Your task to perform on an android device: turn notification dots on Image 0: 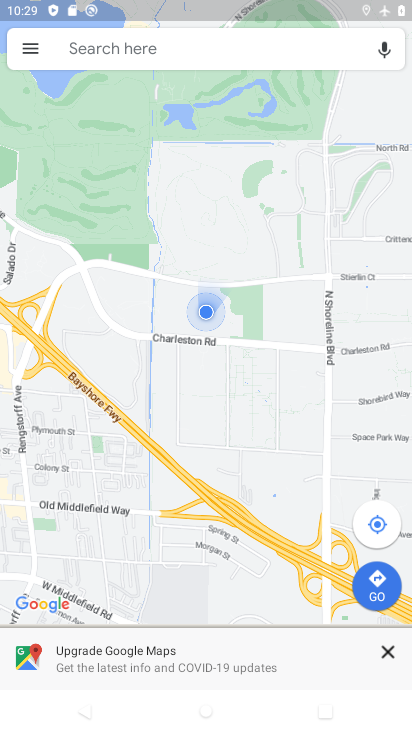
Step 0: press home button
Your task to perform on an android device: turn notification dots on Image 1: 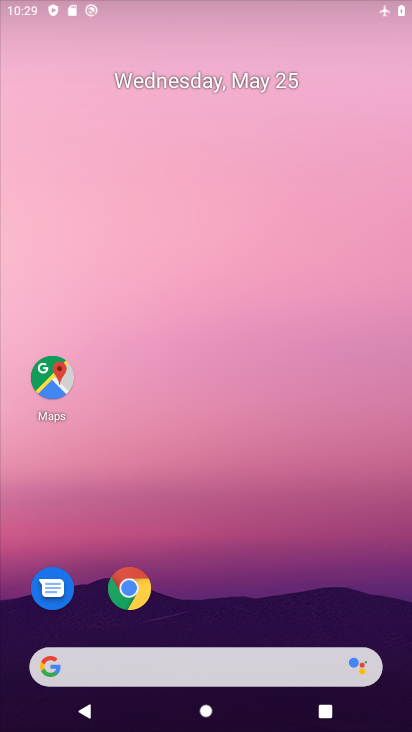
Step 1: drag from (255, 452) to (142, 77)
Your task to perform on an android device: turn notification dots on Image 2: 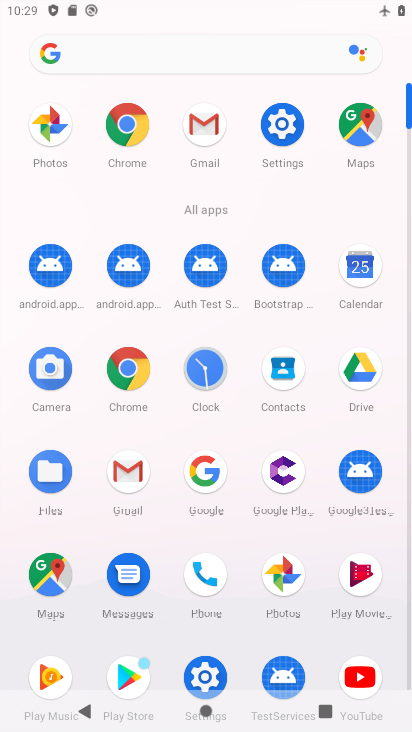
Step 2: click (263, 118)
Your task to perform on an android device: turn notification dots on Image 3: 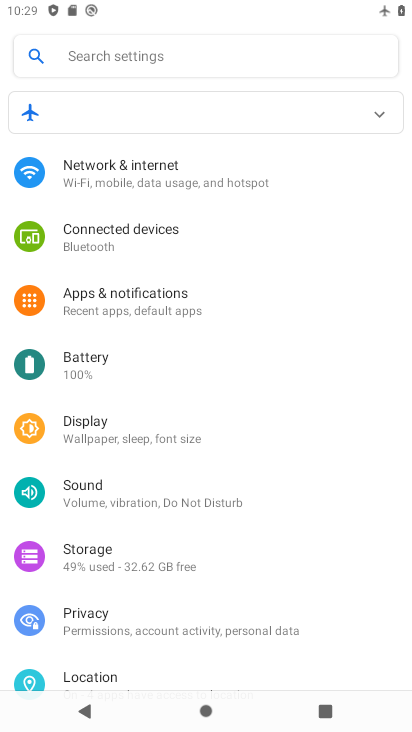
Step 3: click (132, 316)
Your task to perform on an android device: turn notification dots on Image 4: 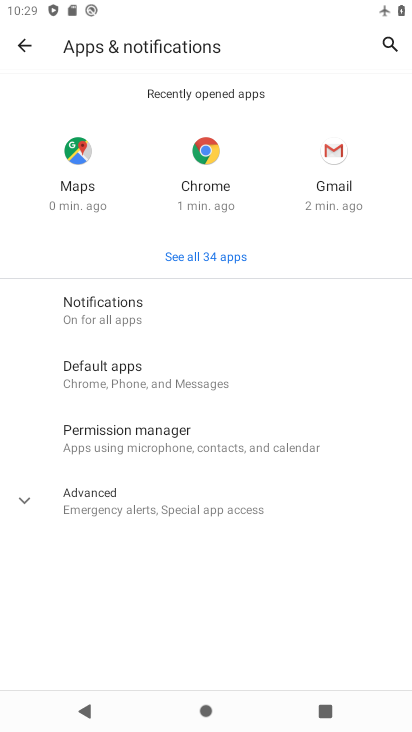
Step 4: click (132, 316)
Your task to perform on an android device: turn notification dots on Image 5: 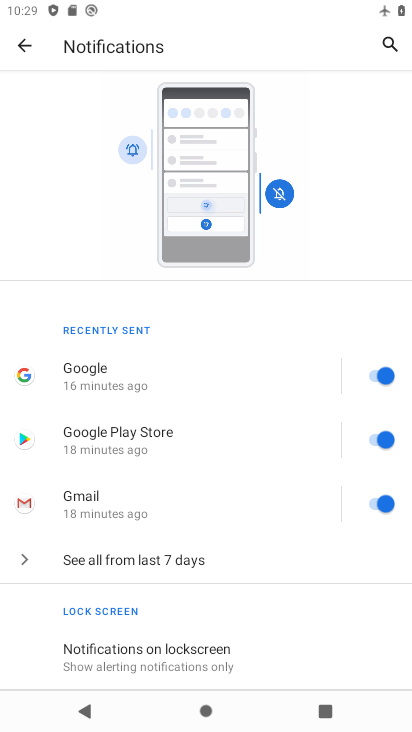
Step 5: drag from (180, 653) to (148, 183)
Your task to perform on an android device: turn notification dots on Image 6: 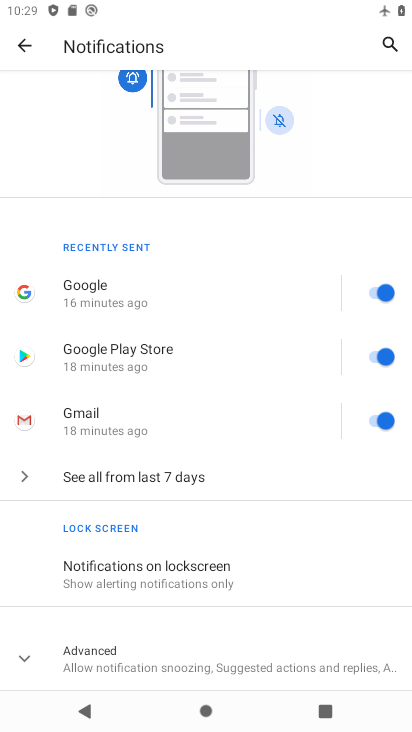
Step 6: click (105, 681)
Your task to perform on an android device: turn notification dots on Image 7: 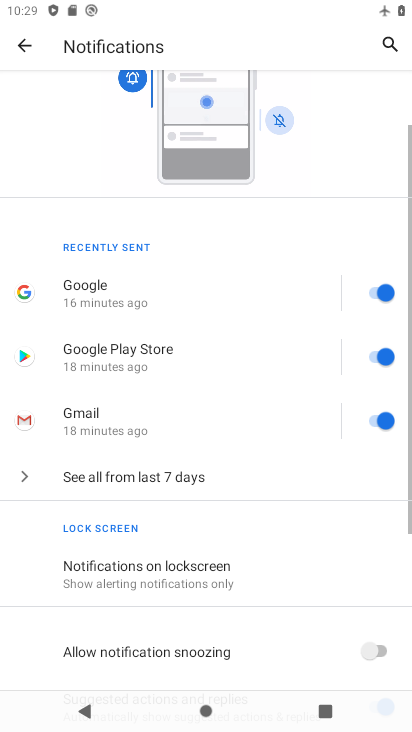
Step 7: task complete